Your task to perform on an android device: change the clock display to analog Image 0: 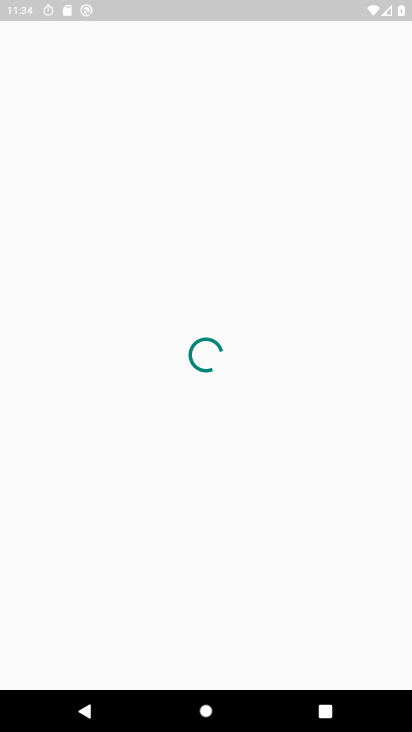
Step 0: press home button
Your task to perform on an android device: change the clock display to analog Image 1: 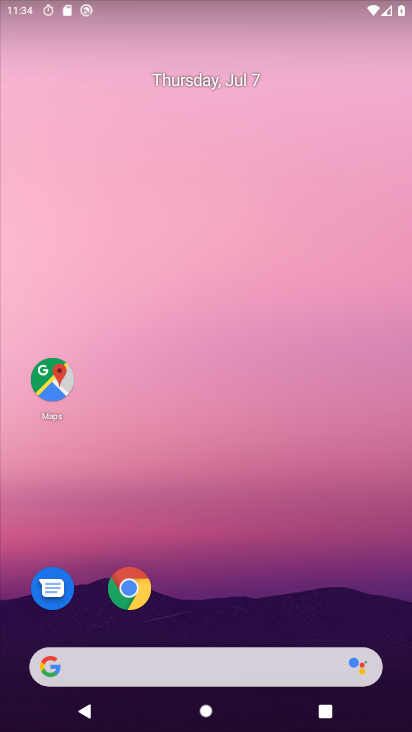
Step 1: drag from (203, 664) to (300, 45)
Your task to perform on an android device: change the clock display to analog Image 2: 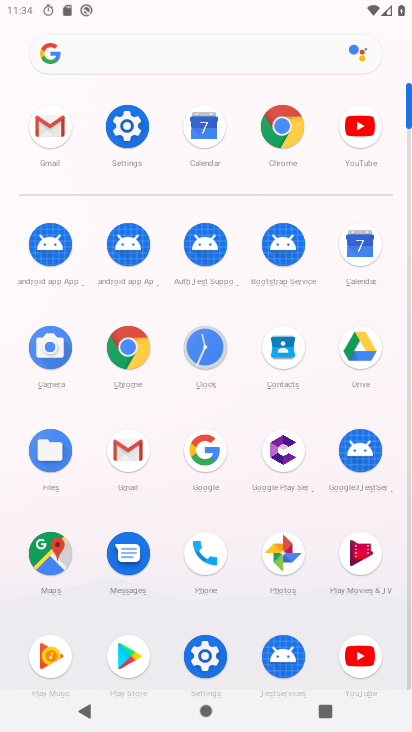
Step 2: click (204, 350)
Your task to perform on an android device: change the clock display to analog Image 3: 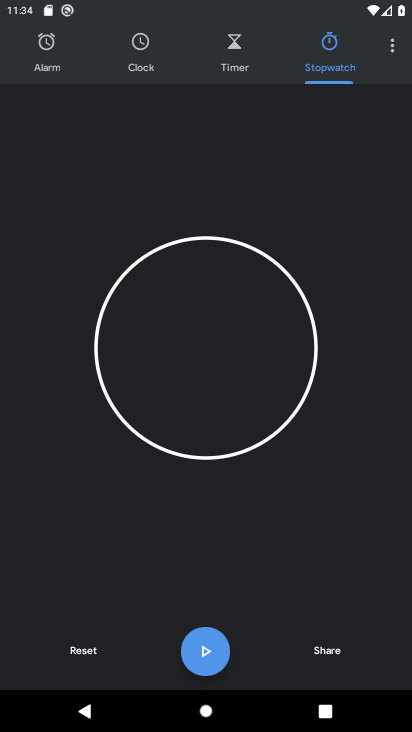
Step 3: click (389, 45)
Your task to perform on an android device: change the clock display to analog Image 4: 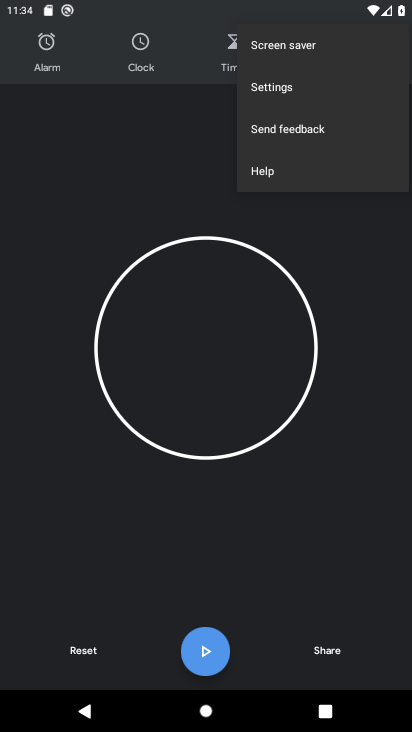
Step 4: click (277, 94)
Your task to perform on an android device: change the clock display to analog Image 5: 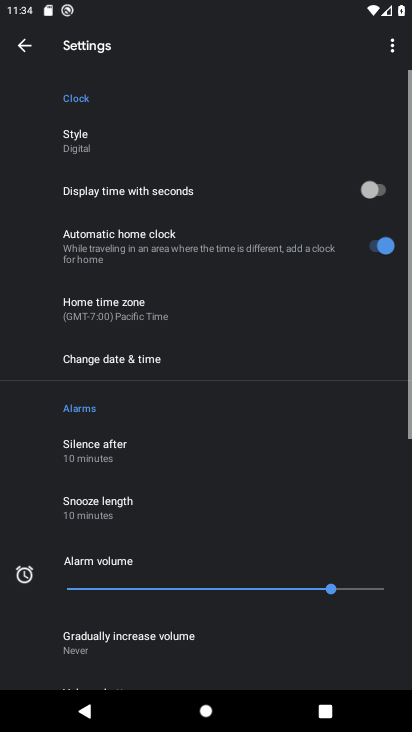
Step 5: click (74, 148)
Your task to perform on an android device: change the clock display to analog Image 6: 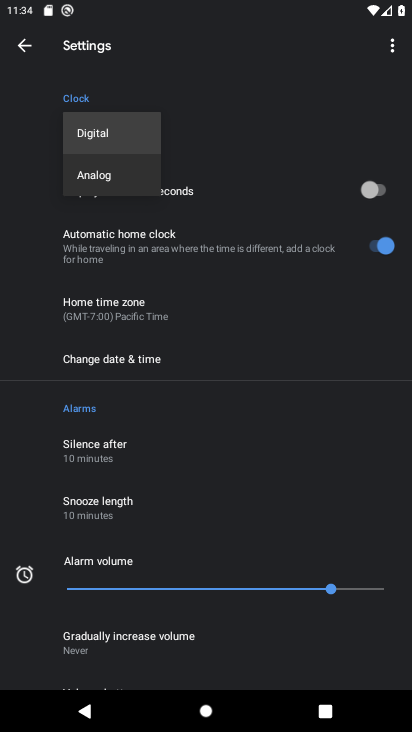
Step 6: click (112, 170)
Your task to perform on an android device: change the clock display to analog Image 7: 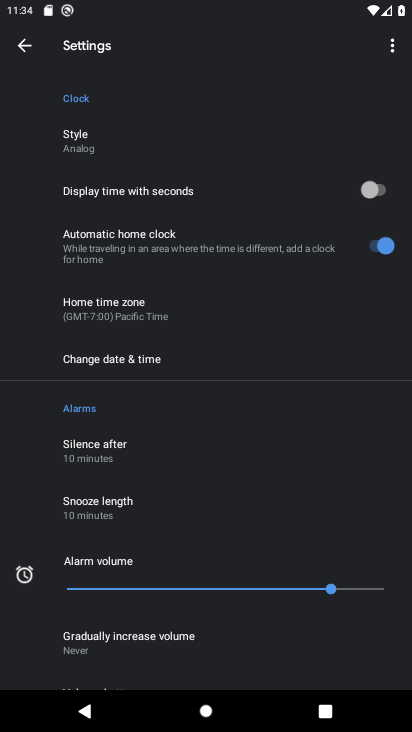
Step 7: task complete